Your task to perform on an android device: Look up the best gaming chair on Best Buy. Image 0: 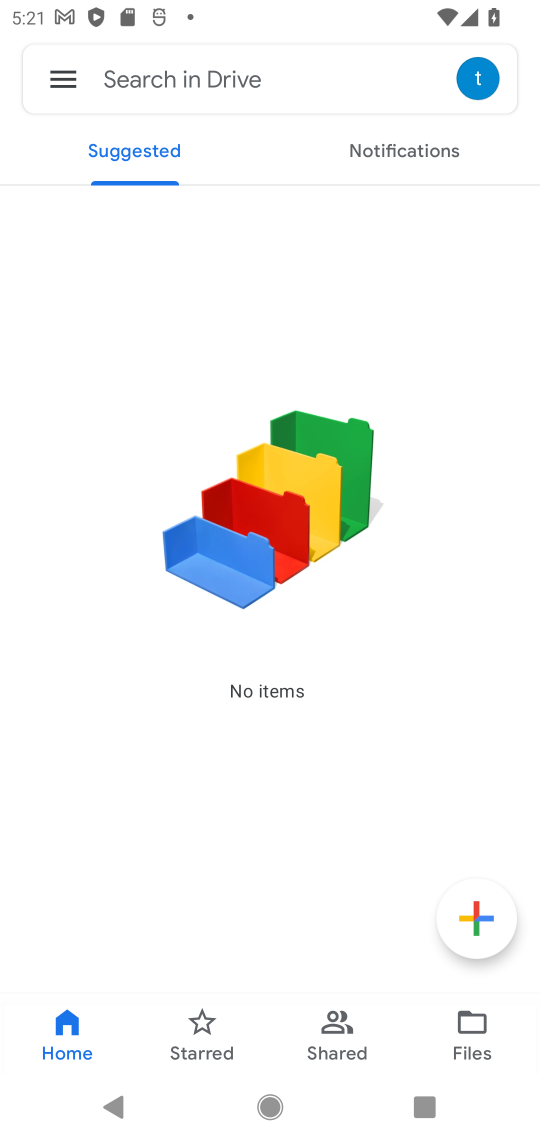
Step 0: press home button
Your task to perform on an android device: Look up the best gaming chair on Best Buy. Image 1: 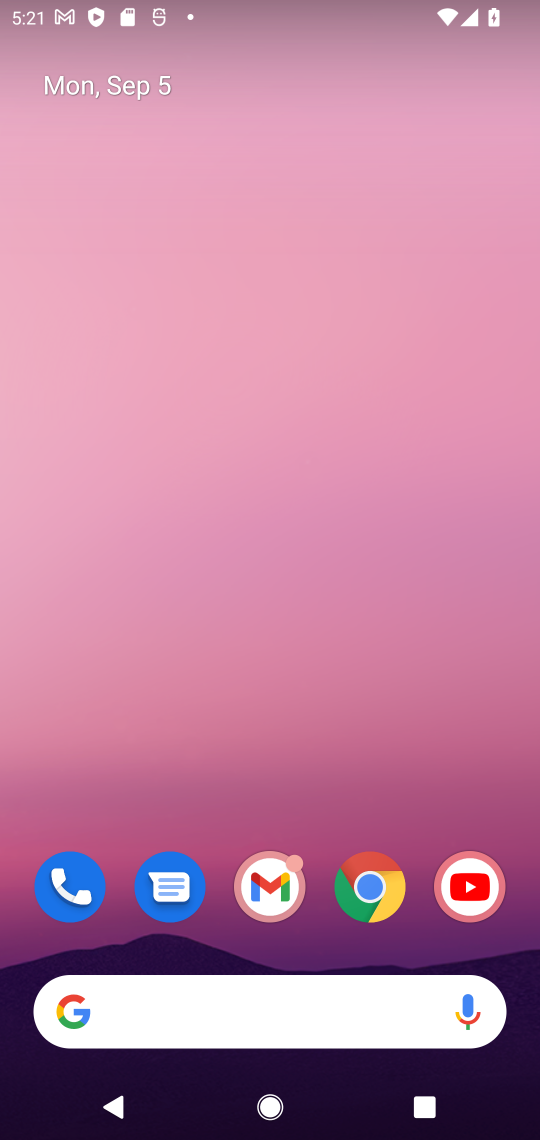
Step 1: click (341, 3)
Your task to perform on an android device: Look up the best gaming chair on Best Buy. Image 2: 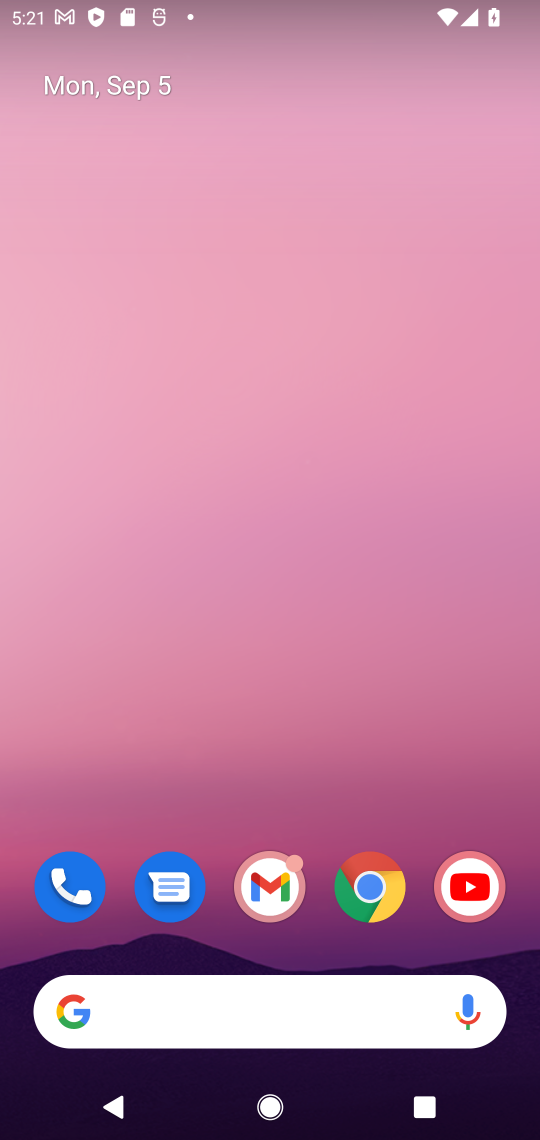
Step 2: drag from (301, 629) to (394, 137)
Your task to perform on an android device: Look up the best gaming chair on Best Buy. Image 3: 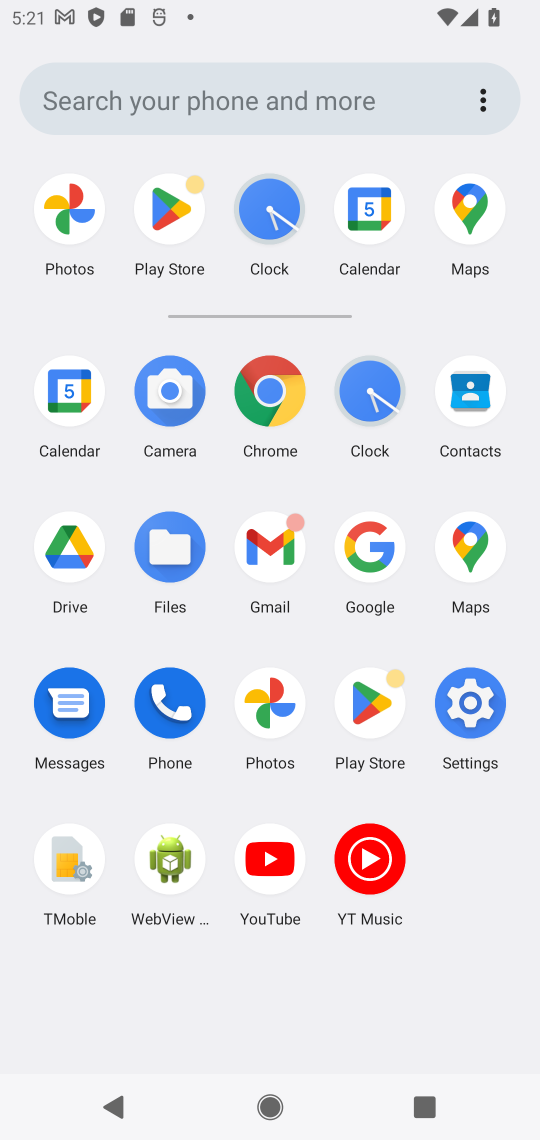
Step 3: click (267, 389)
Your task to perform on an android device: Look up the best gaming chair on Best Buy. Image 4: 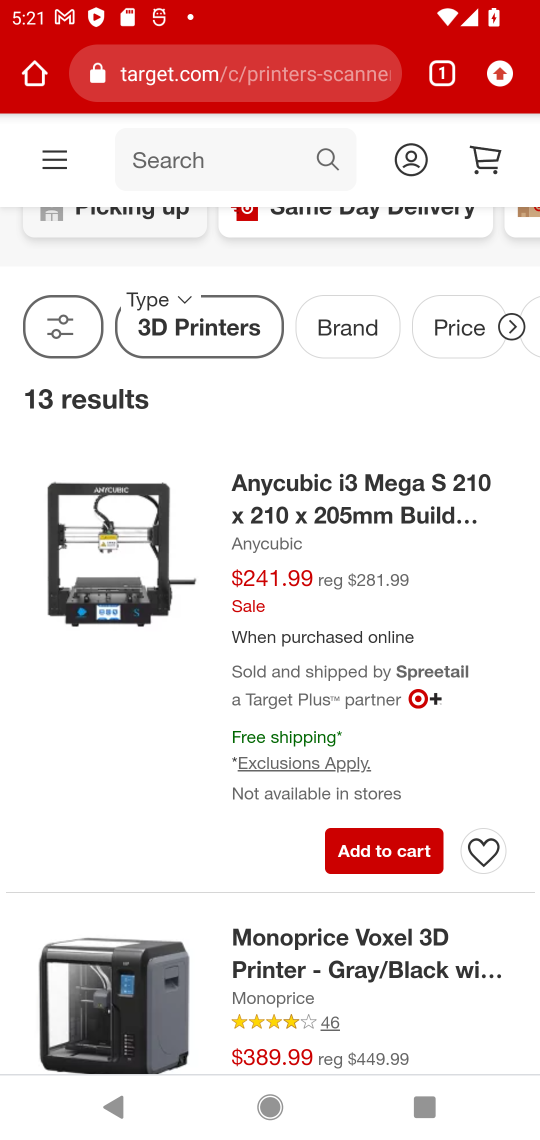
Step 4: click (252, 68)
Your task to perform on an android device: Look up the best gaming chair on Best Buy. Image 5: 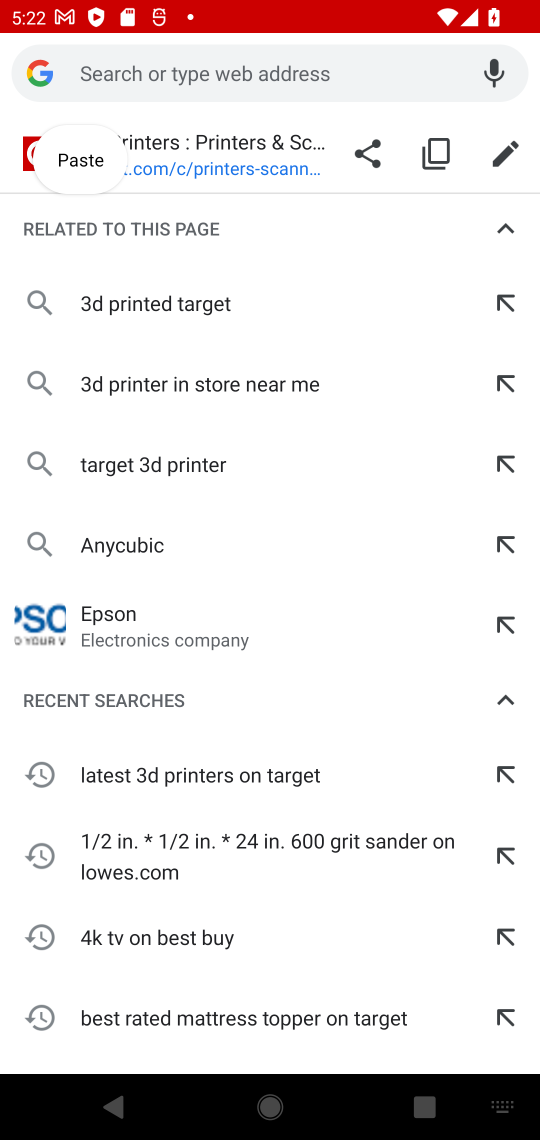
Step 5: type "best gaming chair on Best Buy"
Your task to perform on an android device: Look up the best gaming chair on Best Buy. Image 6: 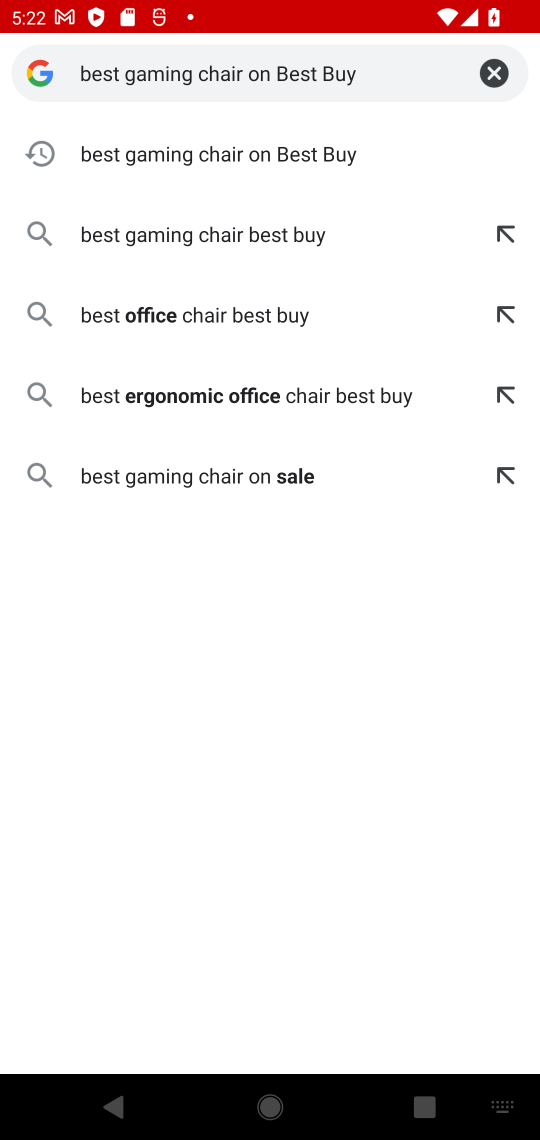
Step 6: press enter
Your task to perform on an android device: Look up the best gaming chair on Best Buy. Image 7: 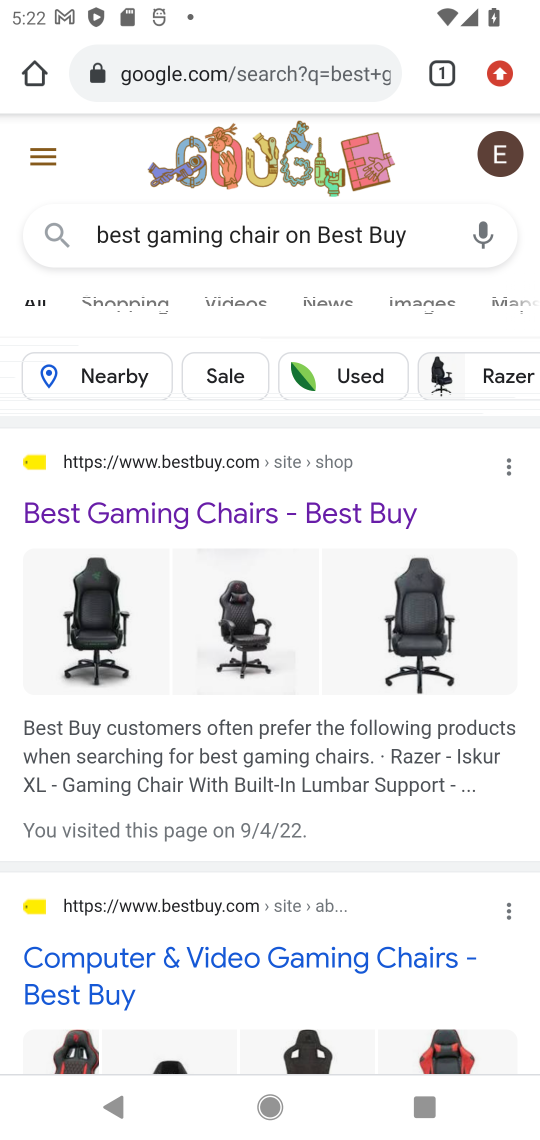
Step 7: click (269, 511)
Your task to perform on an android device: Look up the best gaming chair on Best Buy. Image 8: 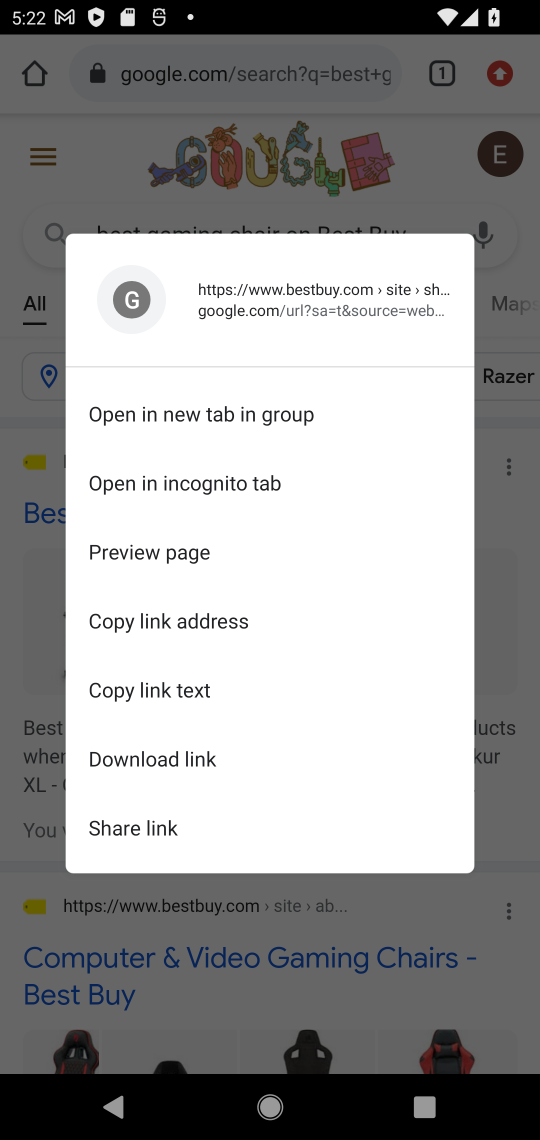
Step 8: click (497, 514)
Your task to perform on an android device: Look up the best gaming chair on Best Buy. Image 9: 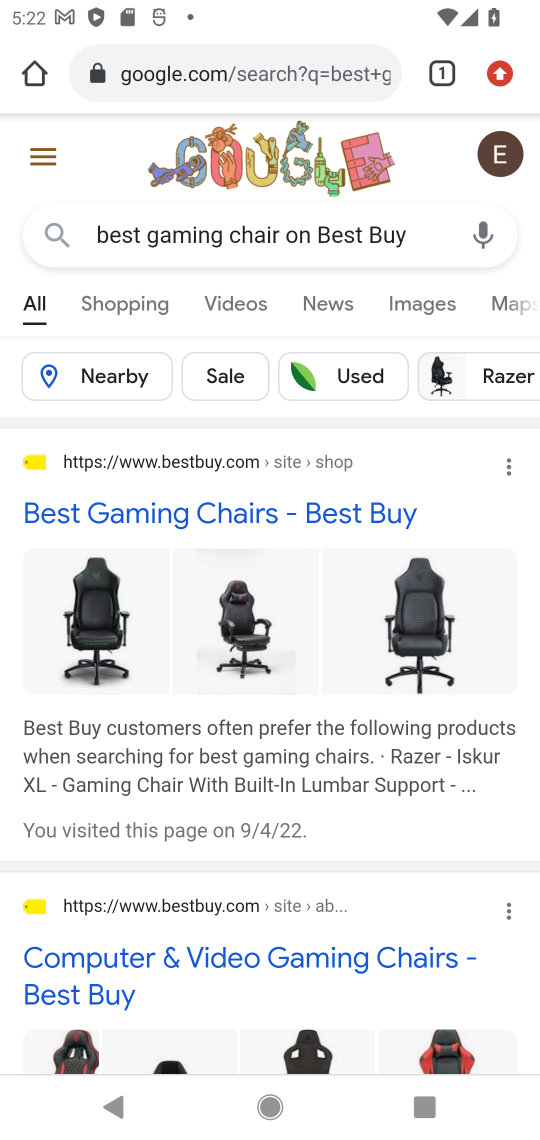
Step 9: click (221, 507)
Your task to perform on an android device: Look up the best gaming chair on Best Buy. Image 10: 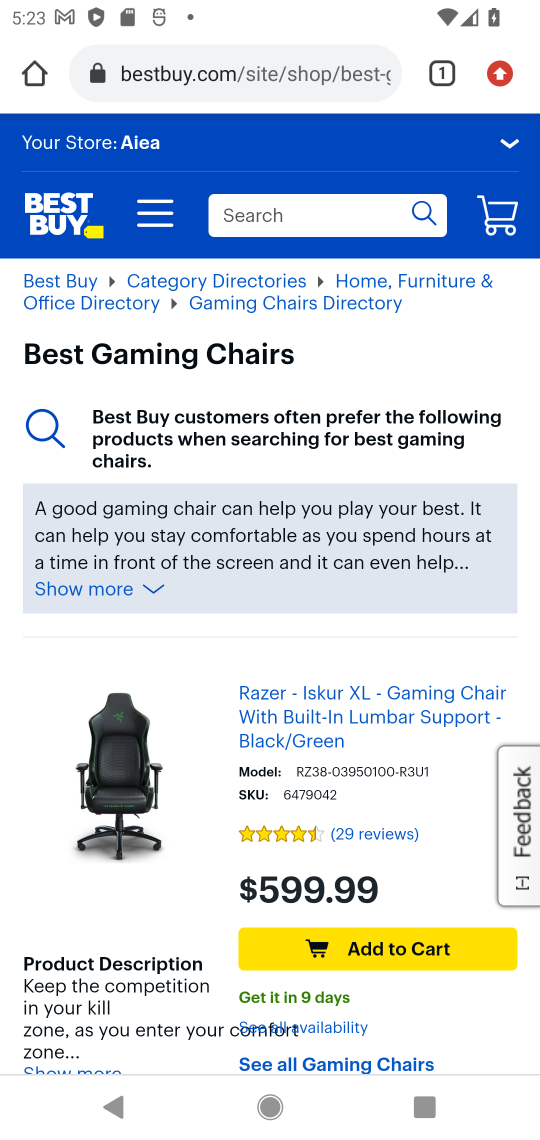
Step 10: task complete